Your task to perform on an android device: turn off airplane mode Image 0: 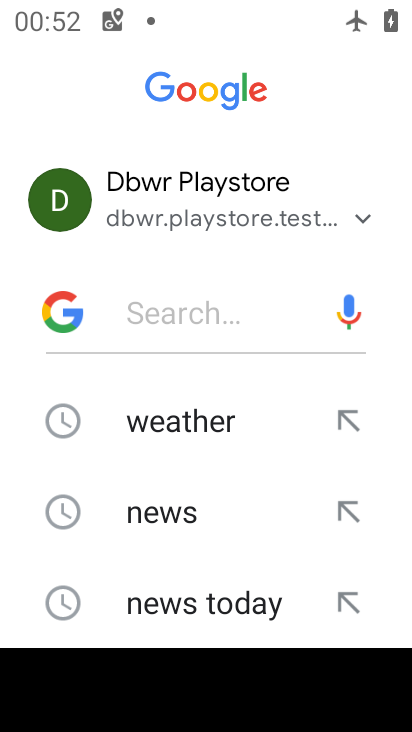
Step 0: press home button
Your task to perform on an android device: turn off airplane mode Image 1: 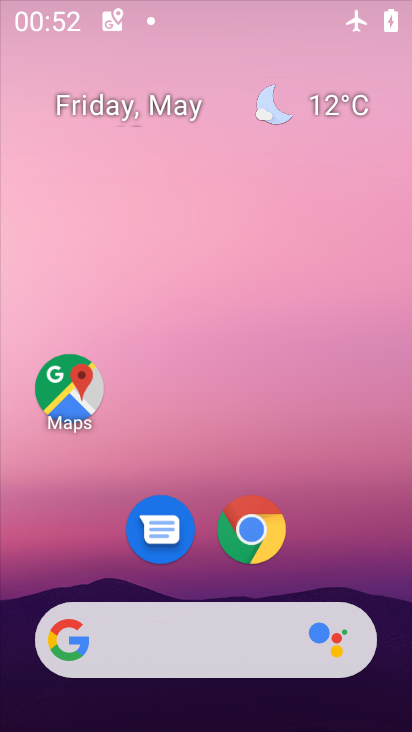
Step 1: drag from (211, 622) to (246, 195)
Your task to perform on an android device: turn off airplane mode Image 2: 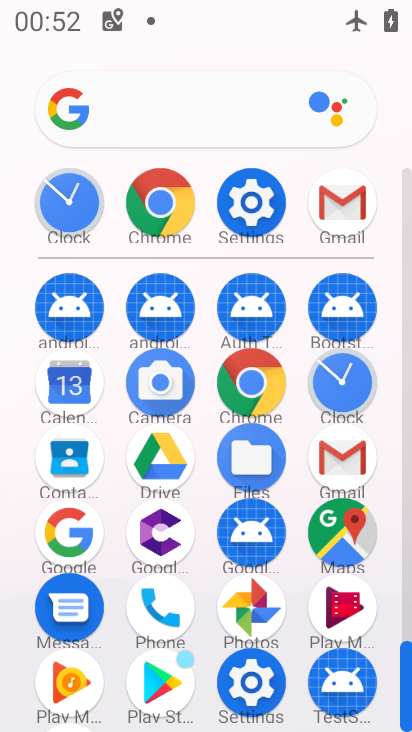
Step 2: click (237, 191)
Your task to perform on an android device: turn off airplane mode Image 3: 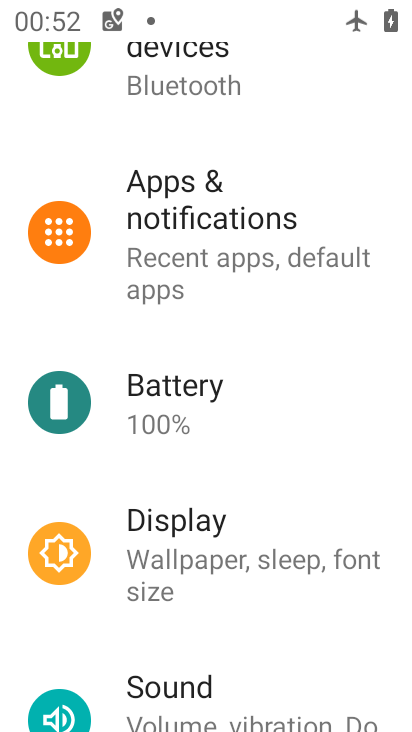
Step 3: drag from (260, 94) to (209, 673)
Your task to perform on an android device: turn off airplane mode Image 4: 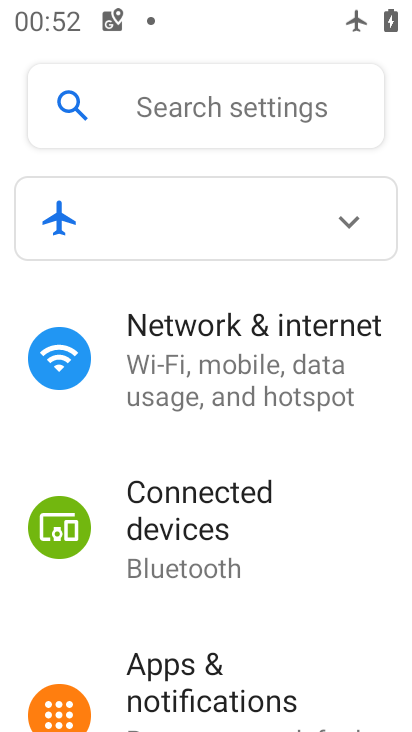
Step 4: click (232, 328)
Your task to perform on an android device: turn off airplane mode Image 5: 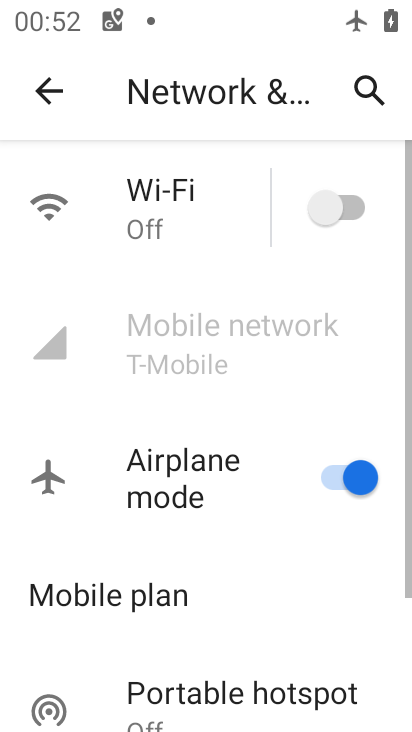
Step 5: task complete